Your task to perform on an android device: What's the weather today? Image 0: 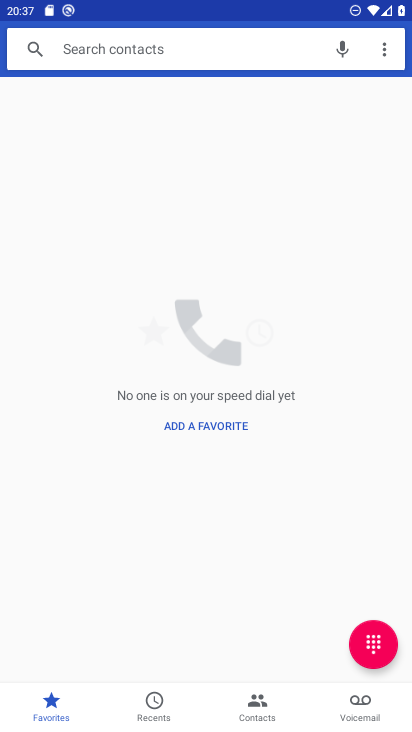
Step 0: press home button
Your task to perform on an android device: What's the weather today? Image 1: 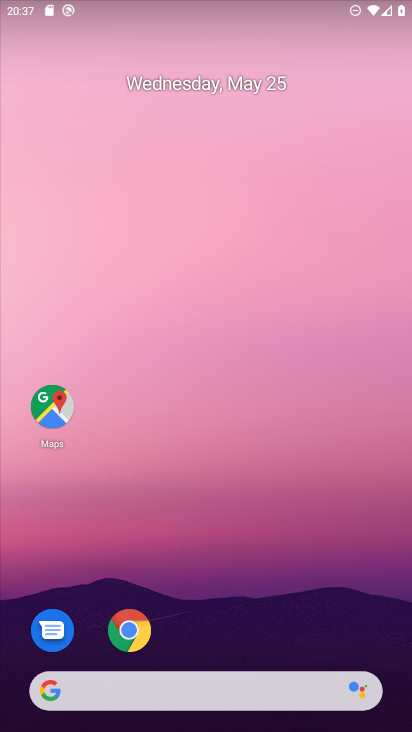
Step 1: drag from (207, 509) to (243, 122)
Your task to perform on an android device: What's the weather today? Image 2: 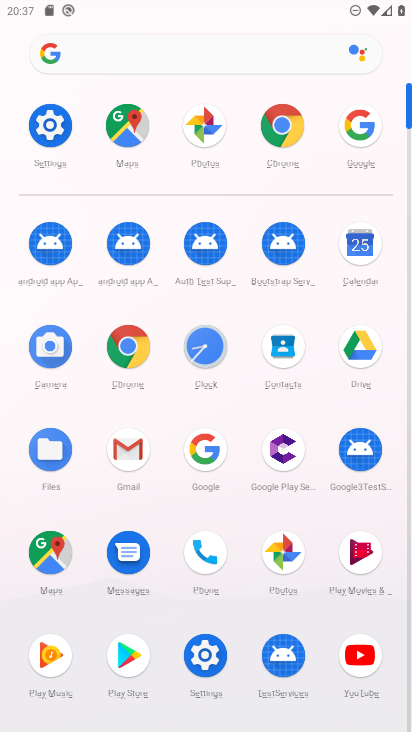
Step 2: click (208, 448)
Your task to perform on an android device: What's the weather today? Image 3: 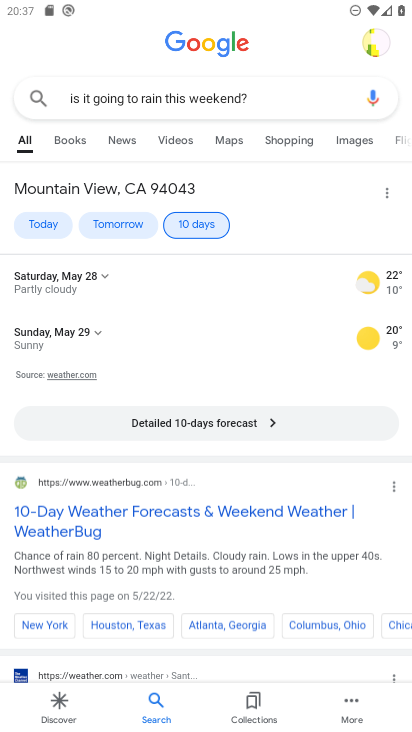
Step 3: click (307, 95)
Your task to perform on an android device: What's the weather today? Image 4: 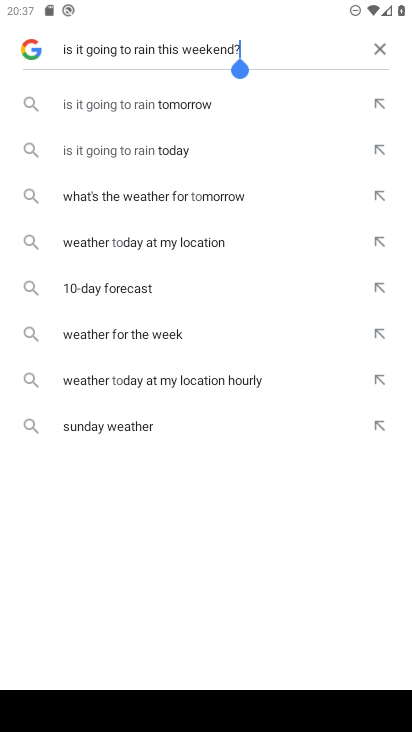
Step 4: click (370, 51)
Your task to perform on an android device: What's the weather today? Image 5: 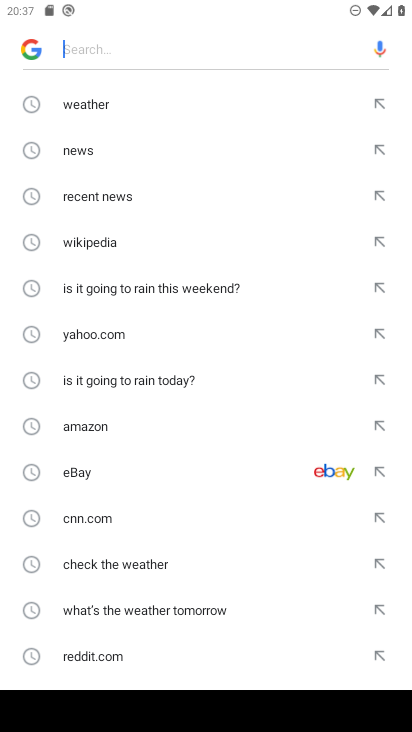
Step 5: click (118, 104)
Your task to perform on an android device: What's the weather today? Image 6: 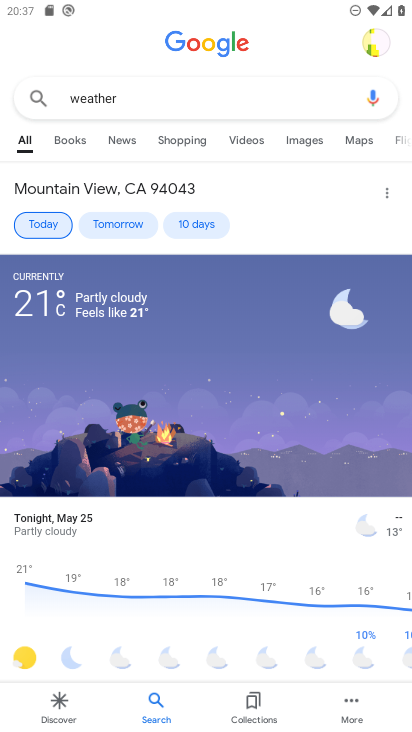
Step 6: task complete